Your task to perform on an android device: toggle javascript in the chrome app Image 0: 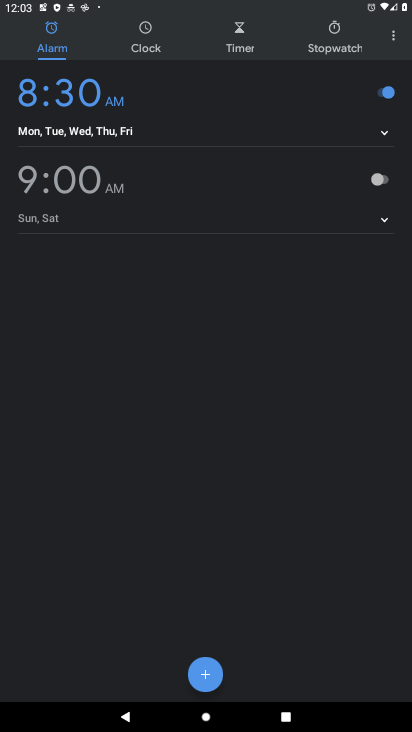
Step 0: press home button
Your task to perform on an android device: toggle javascript in the chrome app Image 1: 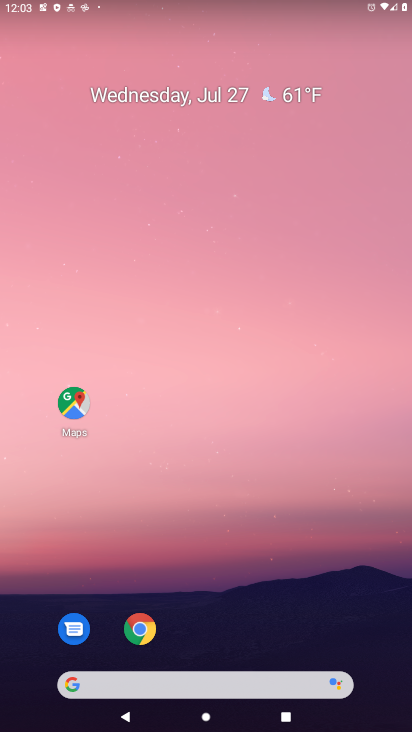
Step 1: click (157, 639)
Your task to perform on an android device: toggle javascript in the chrome app Image 2: 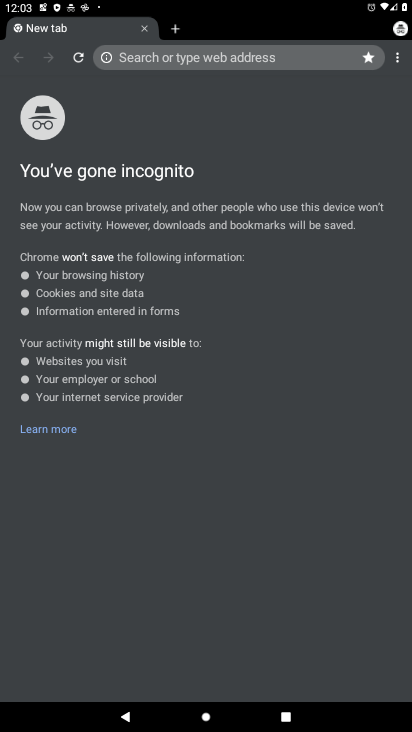
Step 2: click (394, 62)
Your task to perform on an android device: toggle javascript in the chrome app Image 3: 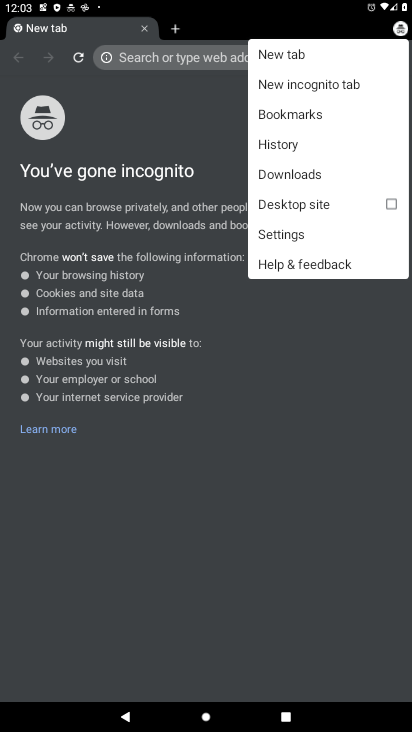
Step 3: click (278, 229)
Your task to perform on an android device: toggle javascript in the chrome app Image 4: 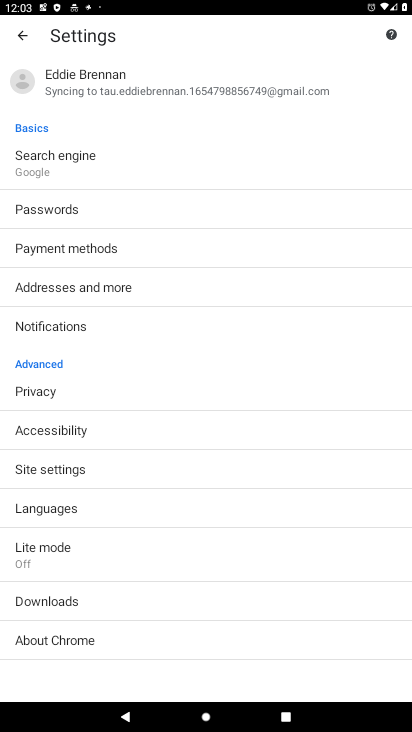
Step 4: click (123, 471)
Your task to perform on an android device: toggle javascript in the chrome app Image 5: 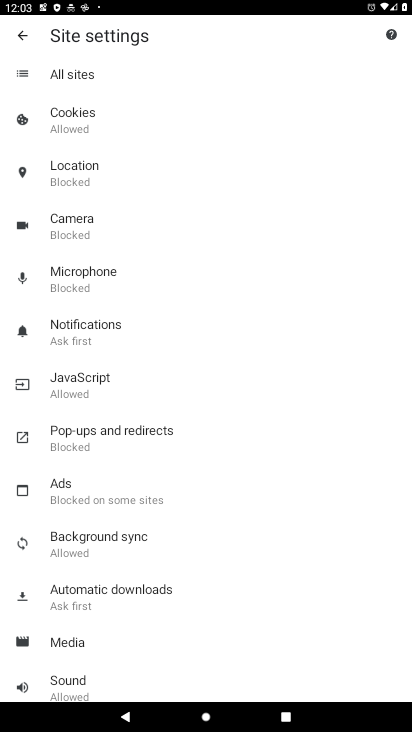
Step 5: click (123, 376)
Your task to perform on an android device: toggle javascript in the chrome app Image 6: 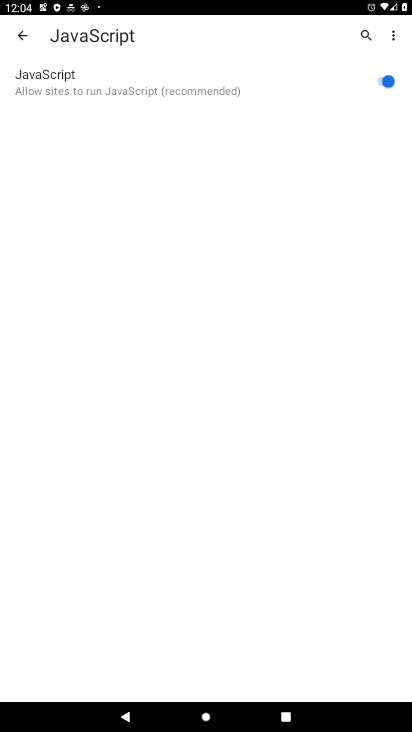
Step 6: click (125, 96)
Your task to perform on an android device: toggle javascript in the chrome app Image 7: 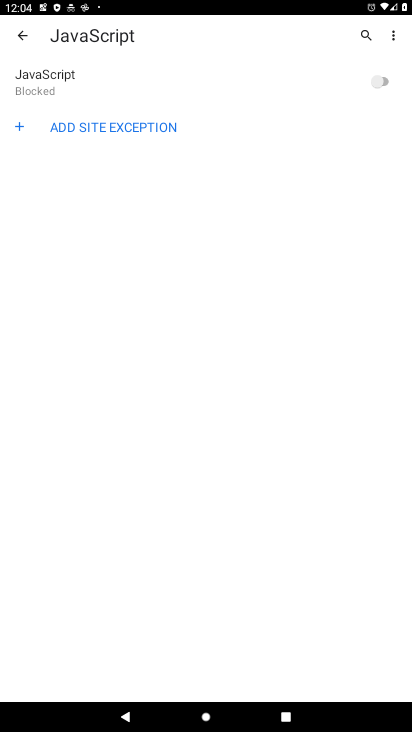
Step 7: task complete